Your task to perform on an android device: turn off smart reply in the gmail app Image 0: 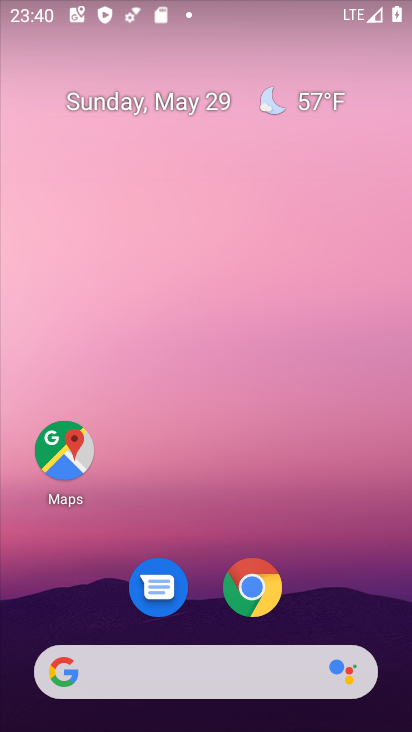
Step 0: drag from (368, 626) to (291, 112)
Your task to perform on an android device: turn off smart reply in the gmail app Image 1: 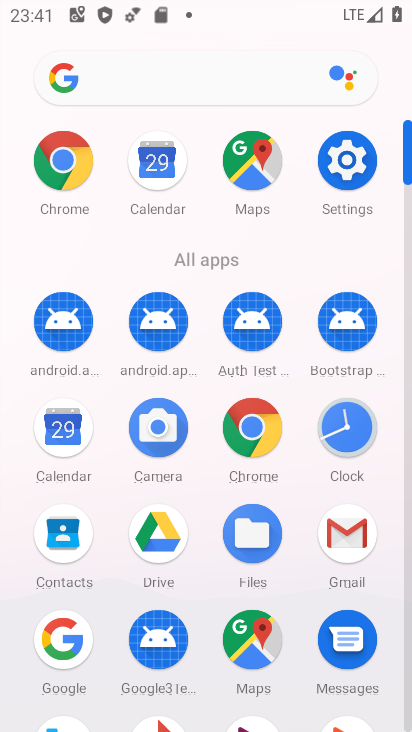
Step 1: click (358, 538)
Your task to perform on an android device: turn off smart reply in the gmail app Image 2: 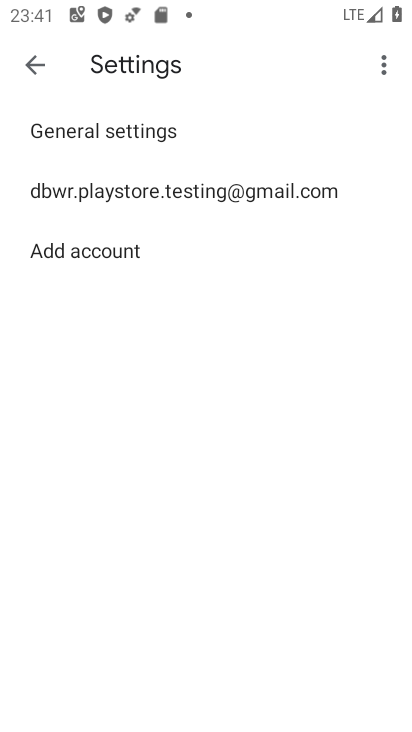
Step 2: click (256, 189)
Your task to perform on an android device: turn off smart reply in the gmail app Image 3: 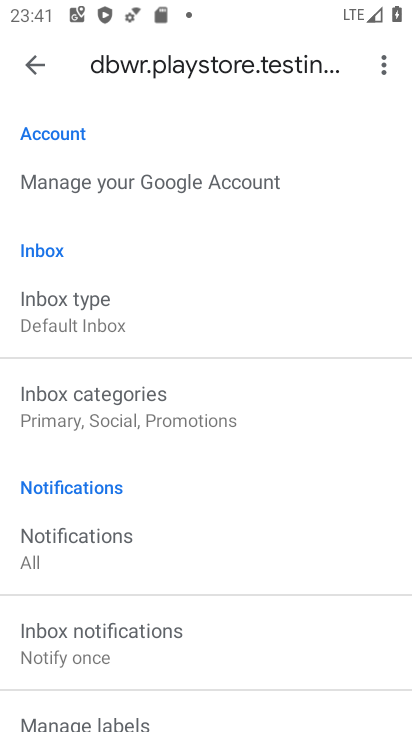
Step 3: drag from (271, 707) to (232, 275)
Your task to perform on an android device: turn off smart reply in the gmail app Image 4: 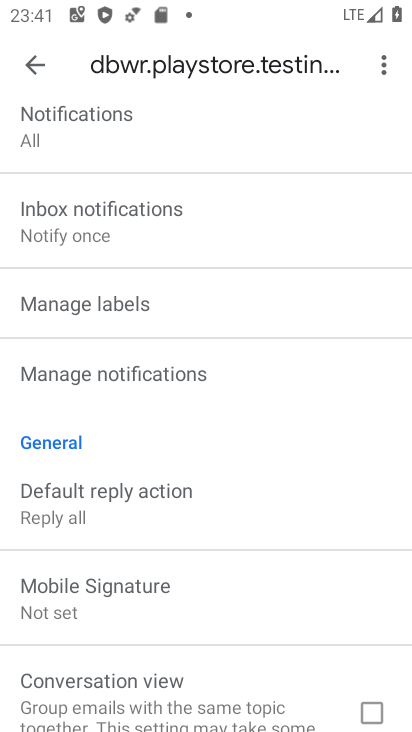
Step 4: drag from (277, 680) to (225, 316)
Your task to perform on an android device: turn off smart reply in the gmail app Image 5: 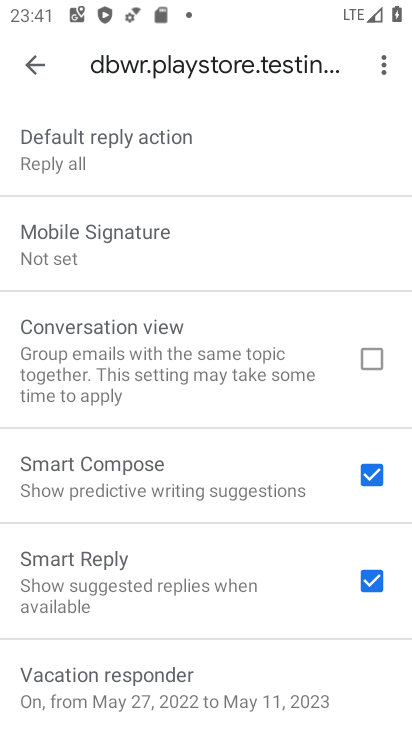
Step 5: click (368, 588)
Your task to perform on an android device: turn off smart reply in the gmail app Image 6: 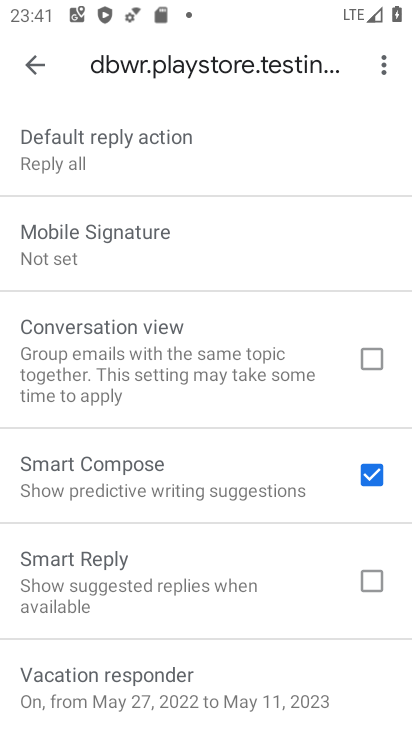
Step 6: task complete